Your task to perform on an android device: Search for a new desk on IKEA Image 0: 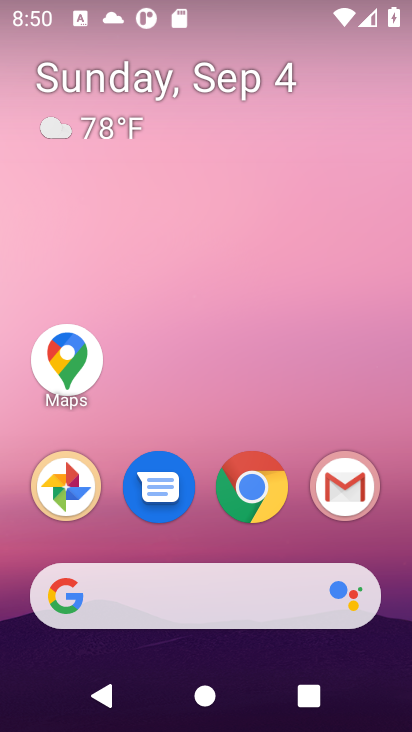
Step 0: click (161, 602)
Your task to perform on an android device: Search for a new desk on IKEA Image 1: 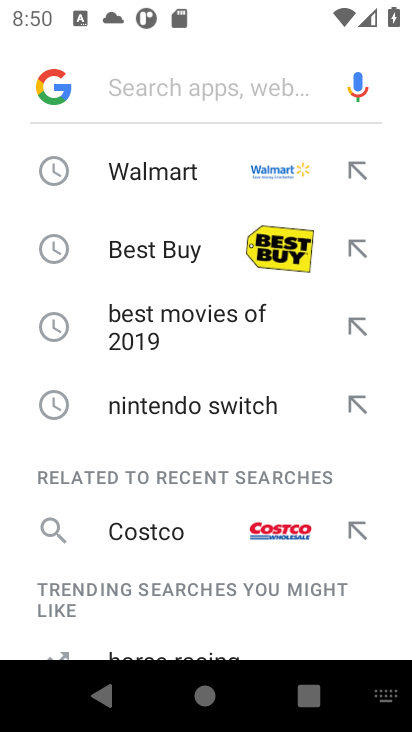
Step 1: type "ike"
Your task to perform on an android device: Search for a new desk on IKEA Image 2: 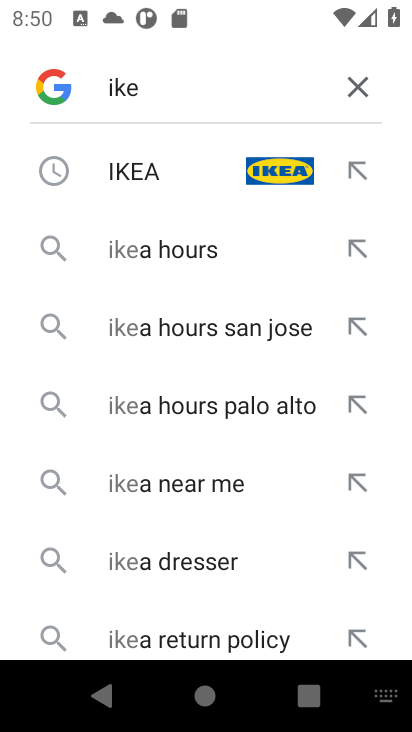
Step 2: click (253, 162)
Your task to perform on an android device: Search for a new desk on IKEA Image 3: 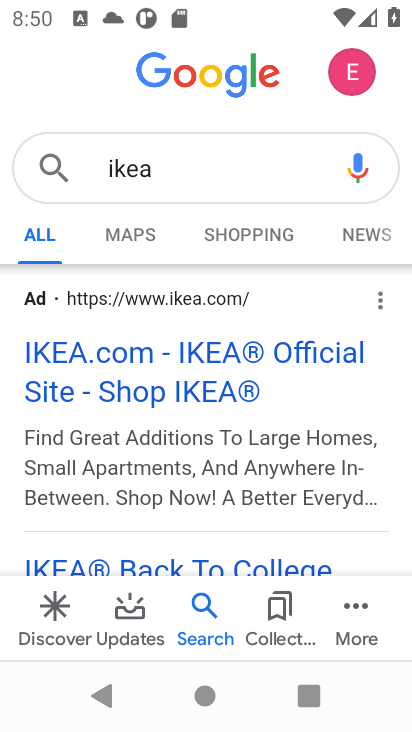
Step 3: drag from (175, 542) to (258, 83)
Your task to perform on an android device: Search for a new desk on IKEA Image 4: 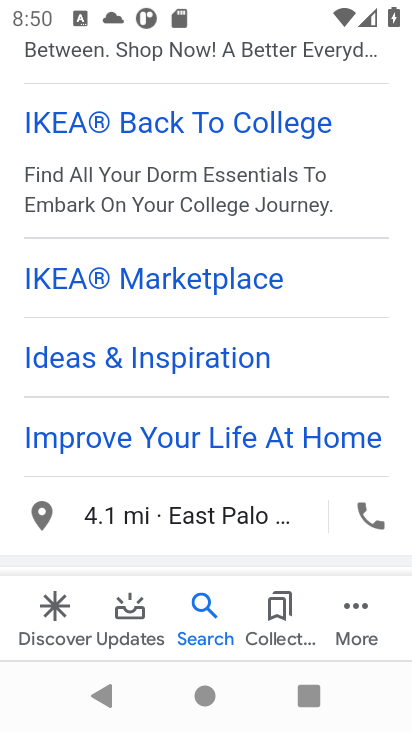
Step 4: drag from (369, 126) to (381, 418)
Your task to perform on an android device: Search for a new desk on IKEA Image 5: 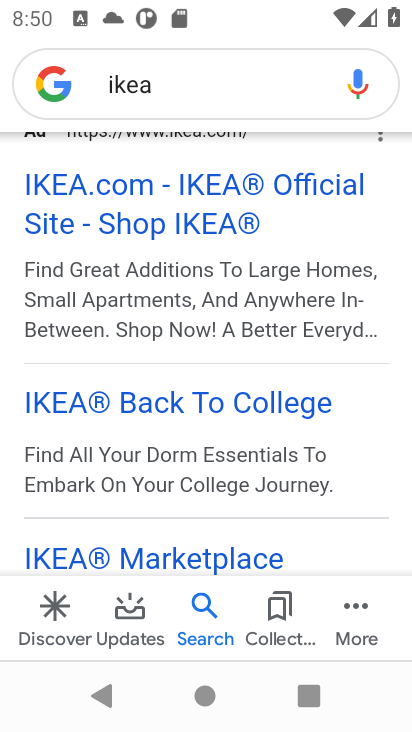
Step 5: drag from (291, 153) to (321, 340)
Your task to perform on an android device: Search for a new desk on IKEA Image 6: 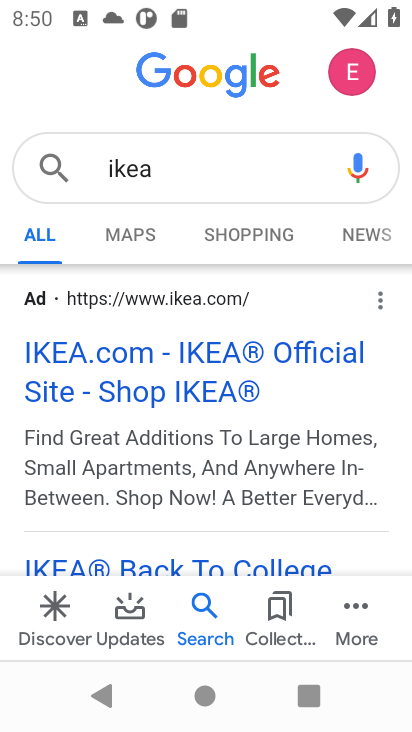
Step 6: click (185, 372)
Your task to perform on an android device: Search for a new desk on IKEA Image 7: 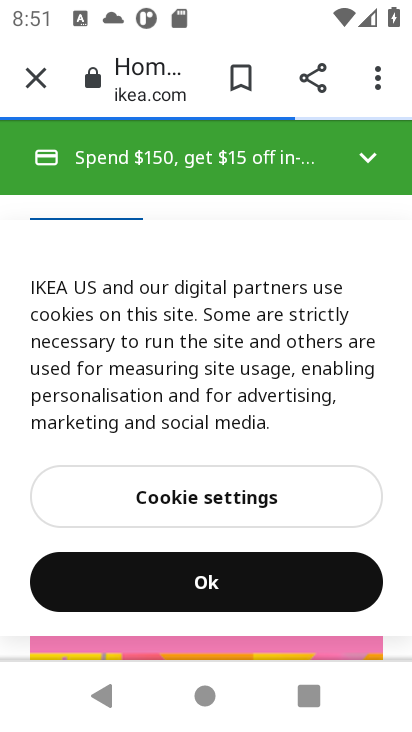
Step 7: click (81, 588)
Your task to perform on an android device: Search for a new desk on IKEA Image 8: 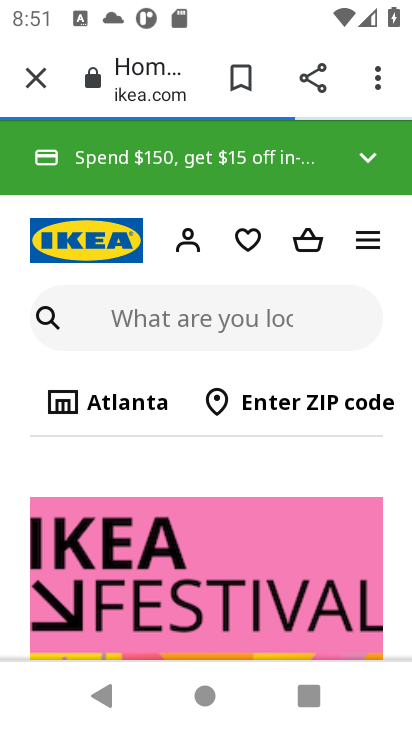
Step 8: click (163, 324)
Your task to perform on an android device: Search for a new desk on IKEA Image 9: 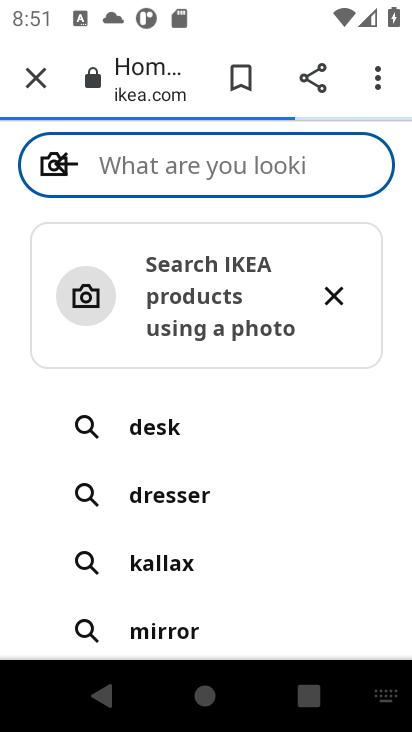
Step 9: click (185, 419)
Your task to perform on an android device: Search for a new desk on IKEA Image 10: 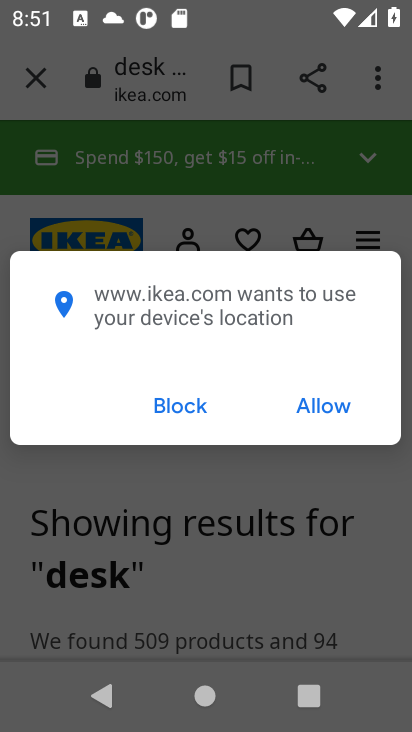
Step 10: click (327, 400)
Your task to perform on an android device: Search for a new desk on IKEA Image 11: 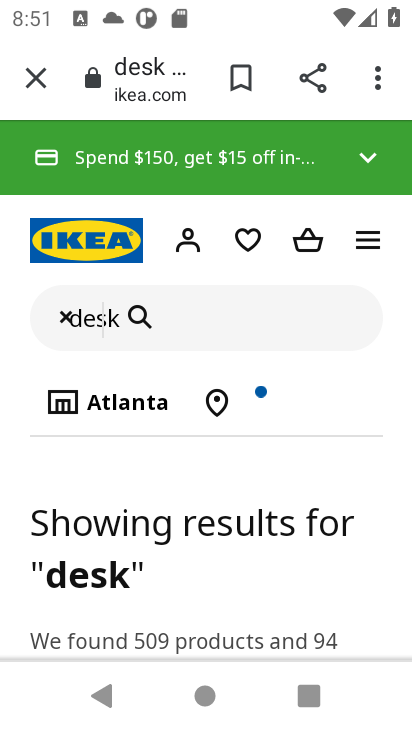
Step 11: task complete